Your task to perform on an android device: set an alarm Image 0: 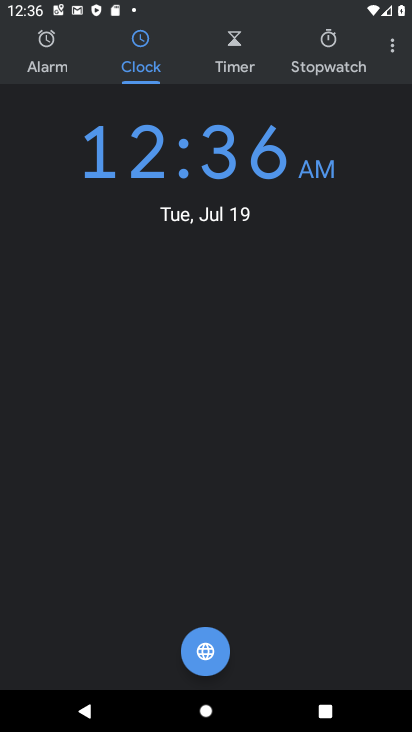
Step 0: press home button
Your task to perform on an android device: set an alarm Image 1: 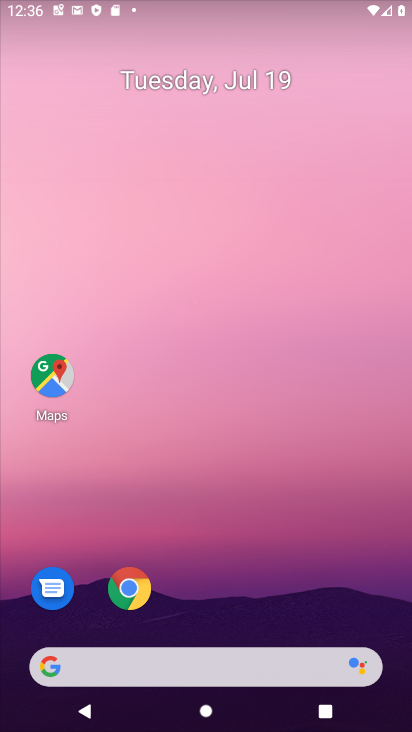
Step 1: drag from (373, 614) to (236, 58)
Your task to perform on an android device: set an alarm Image 2: 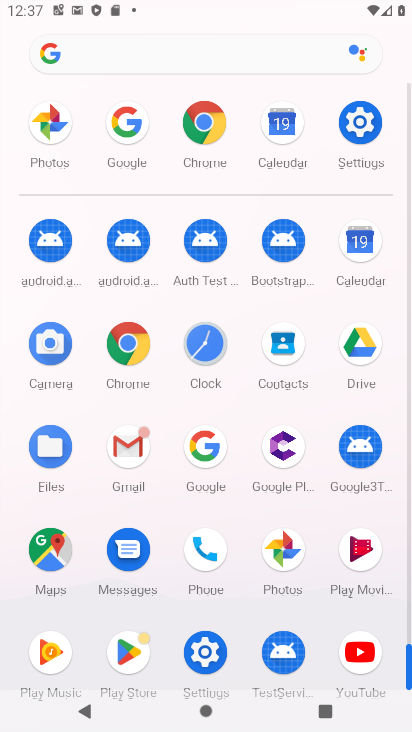
Step 2: click (207, 342)
Your task to perform on an android device: set an alarm Image 3: 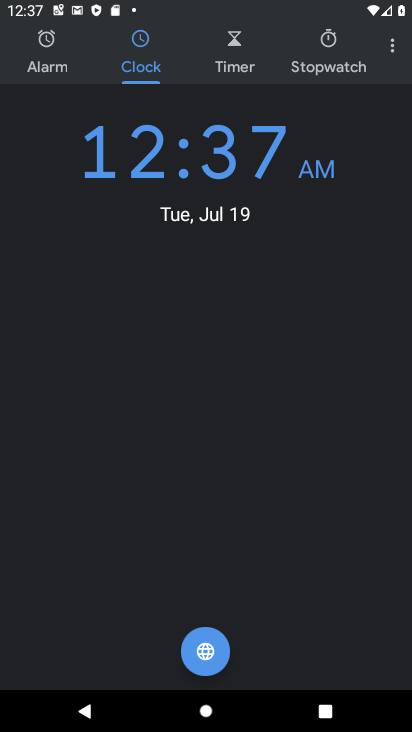
Step 3: click (41, 47)
Your task to perform on an android device: set an alarm Image 4: 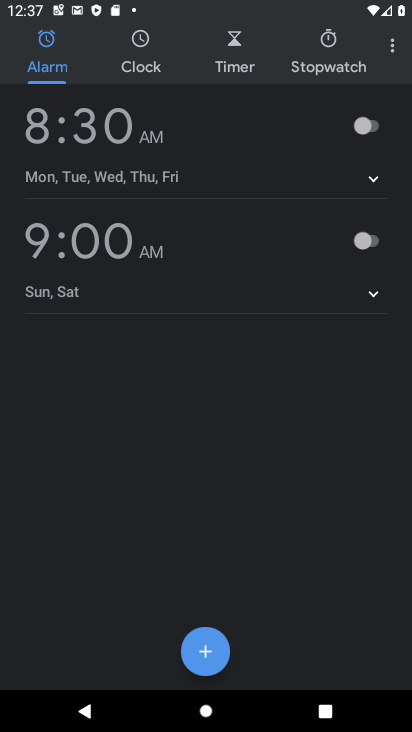
Step 4: click (376, 139)
Your task to perform on an android device: set an alarm Image 5: 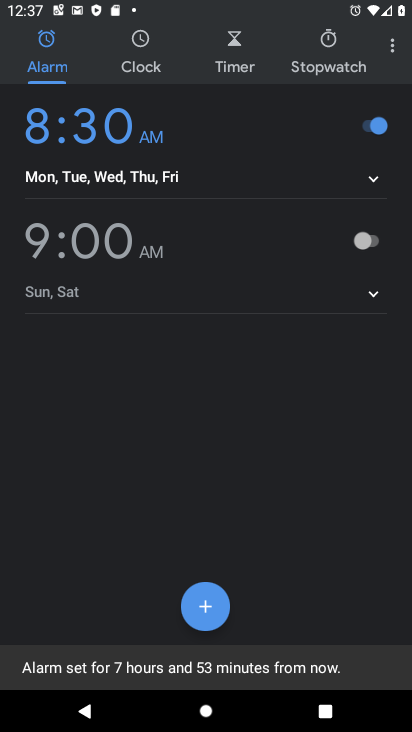
Step 5: task complete